Your task to perform on an android device: Show me recent news Image 0: 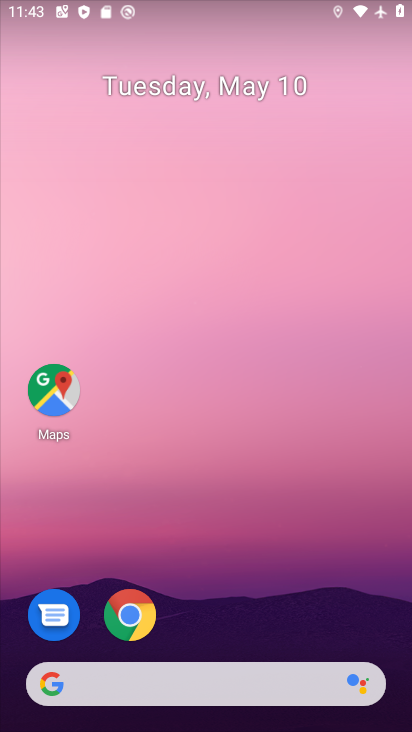
Step 0: drag from (249, 575) to (234, 41)
Your task to perform on an android device: Show me recent news Image 1: 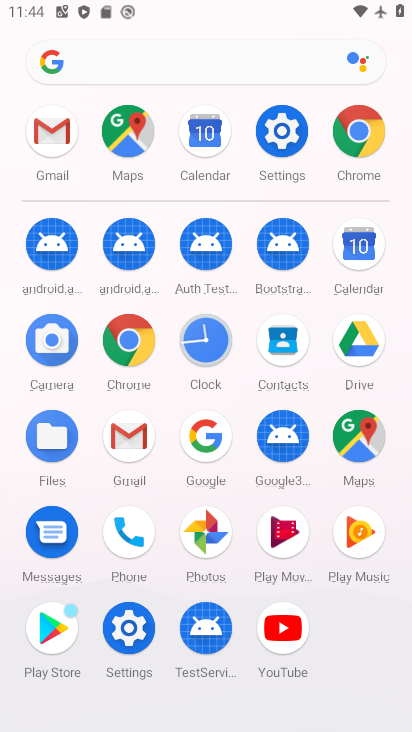
Step 1: click (131, 329)
Your task to perform on an android device: Show me recent news Image 2: 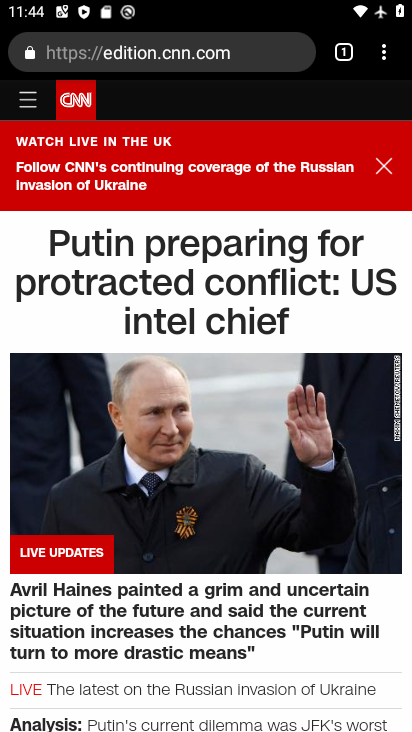
Step 2: click (185, 52)
Your task to perform on an android device: Show me recent news Image 3: 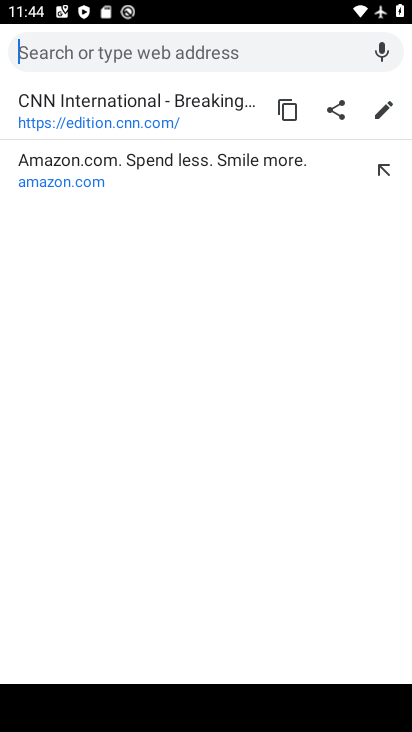
Step 3: type "Show me recent news"
Your task to perform on an android device: Show me recent news Image 4: 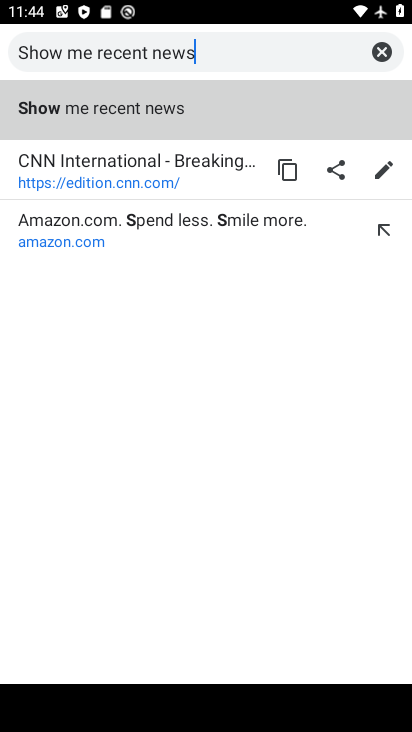
Step 4: type ""
Your task to perform on an android device: Show me recent news Image 5: 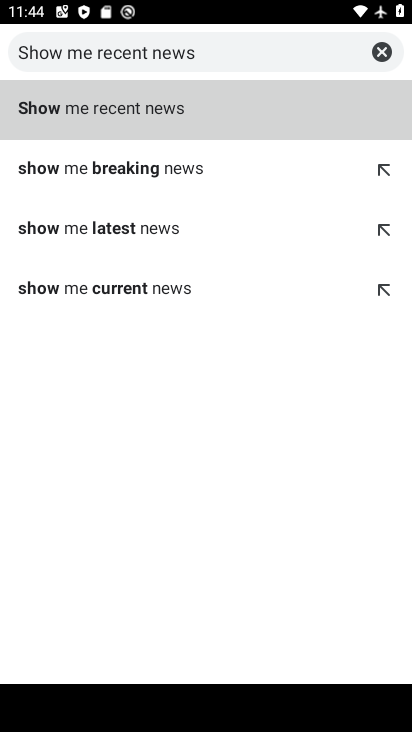
Step 5: click (206, 163)
Your task to perform on an android device: Show me recent news Image 6: 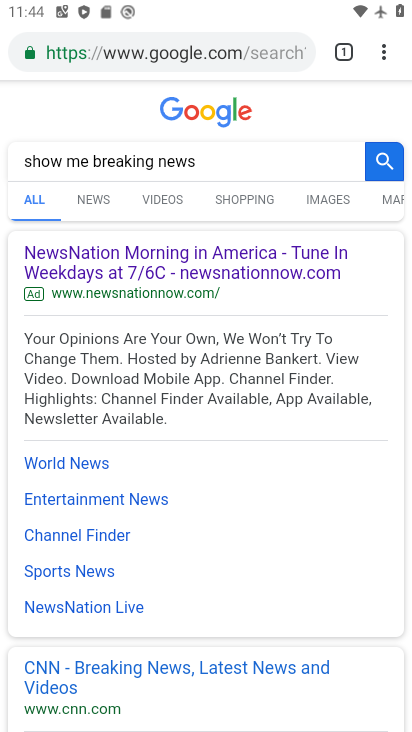
Step 6: click (75, 204)
Your task to perform on an android device: Show me recent news Image 7: 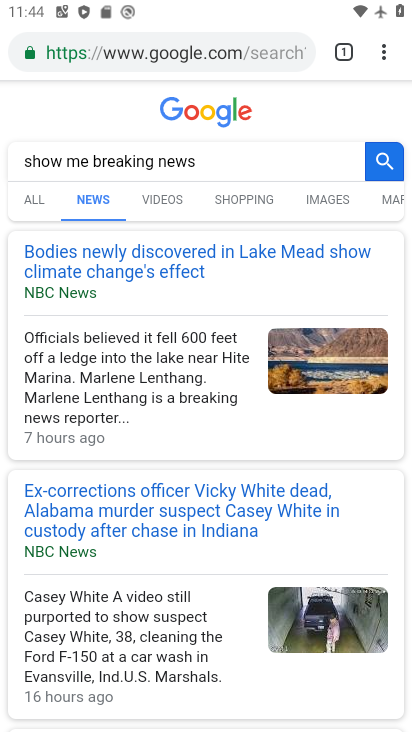
Step 7: task complete